Your task to perform on an android device: turn off location history Image 0: 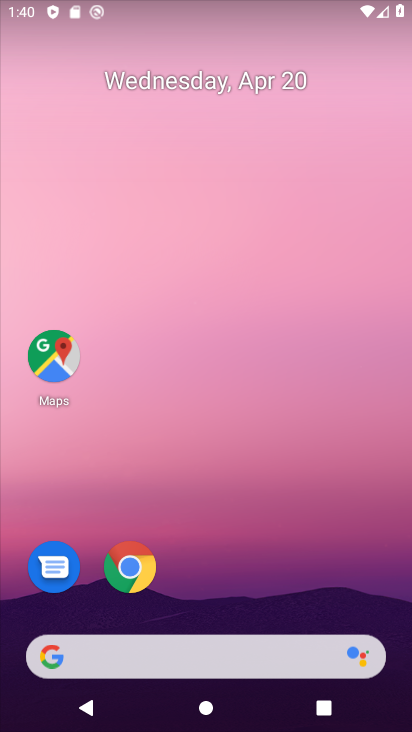
Step 0: drag from (202, 634) to (197, 143)
Your task to perform on an android device: turn off location history Image 1: 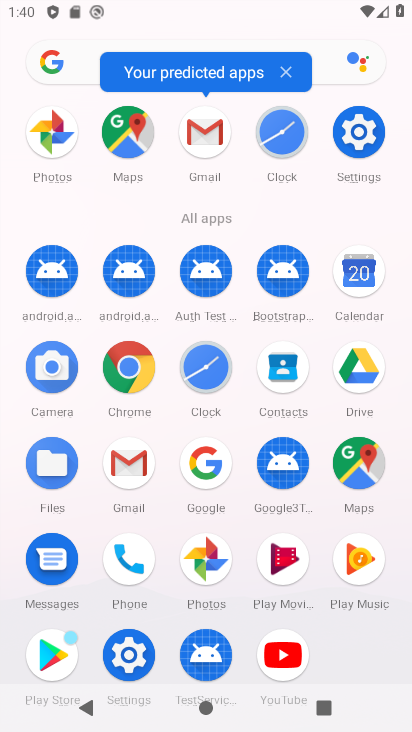
Step 1: click (352, 143)
Your task to perform on an android device: turn off location history Image 2: 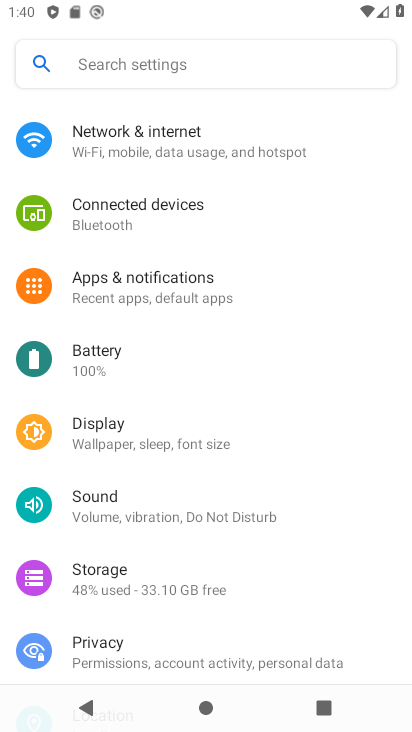
Step 2: click (352, 143)
Your task to perform on an android device: turn off location history Image 3: 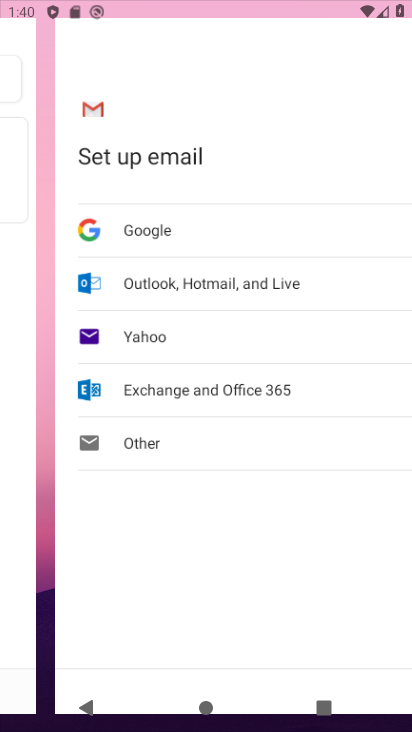
Step 3: drag from (200, 591) to (229, 137)
Your task to perform on an android device: turn off location history Image 4: 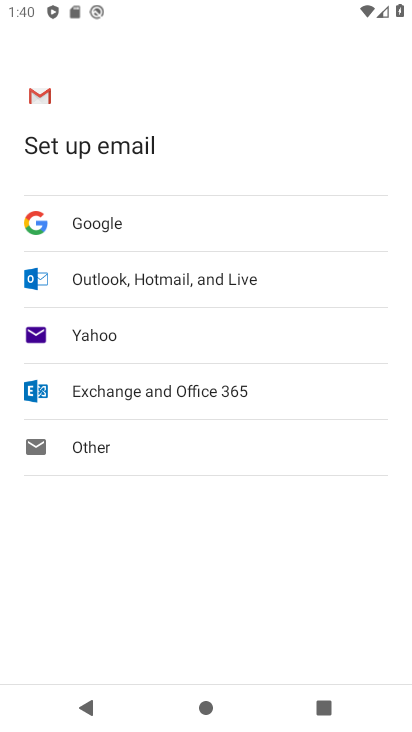
Step 4: press back button
Your task to perform on an android device: turn off location history Image 5: 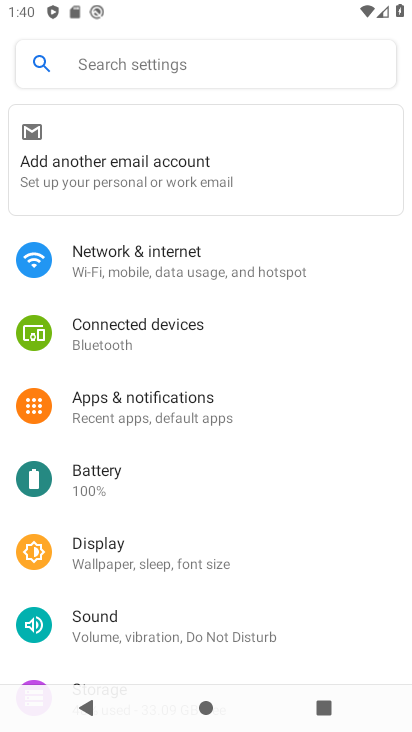
Step 5: drag from (218, 594) to (251, 187)
Your task to perform on an android device: turn off location history Image 6: 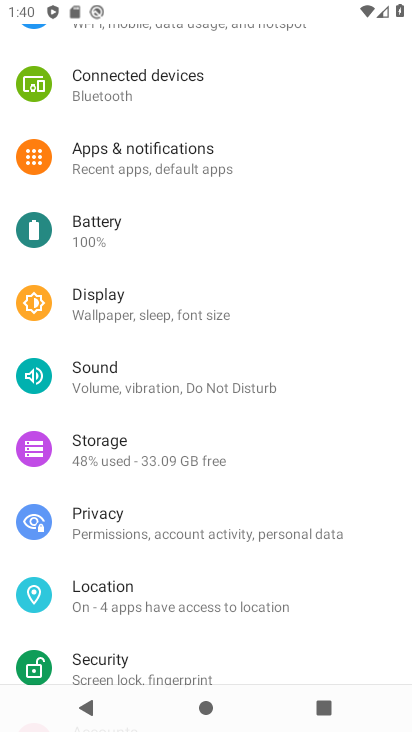
Step 6: click (176, 602)
Your task to perform on an android device: turn off location history Image 7: 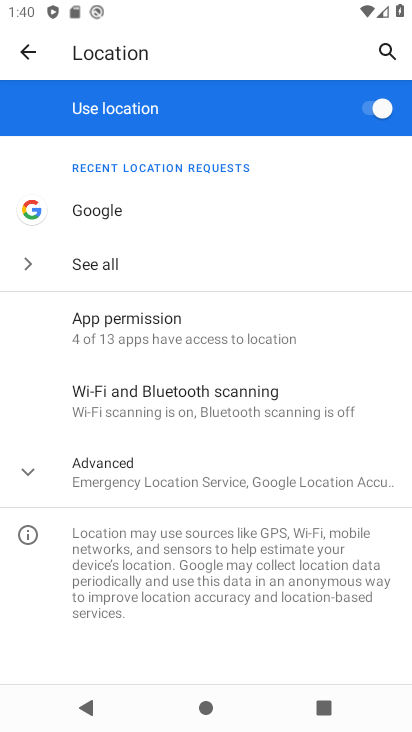
Step 7: click (178, 474)
Your task to perform on an android device: turn off location history Image 8: 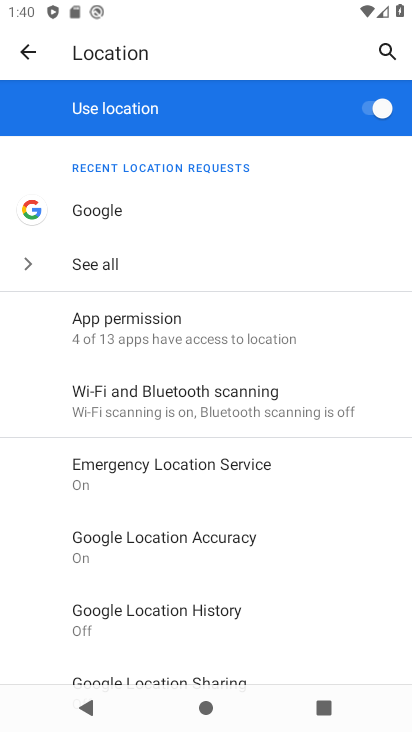
Step 8: click (216, 596)
Your task to perform on an android device: turn off location history Image 9: 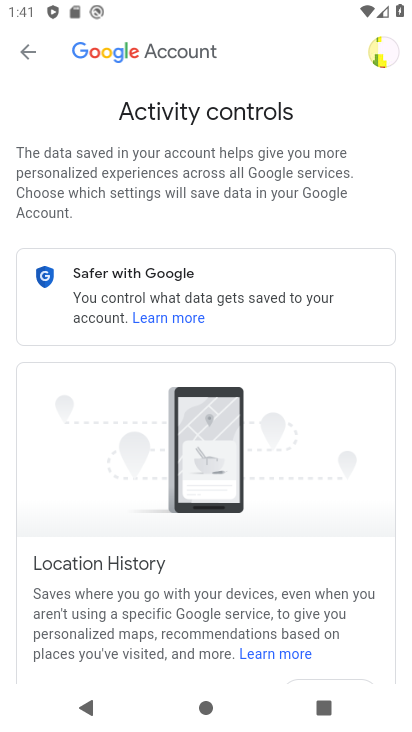
Step 9: task complete